Your task to perform on an android device: Open sound settings Image 0: 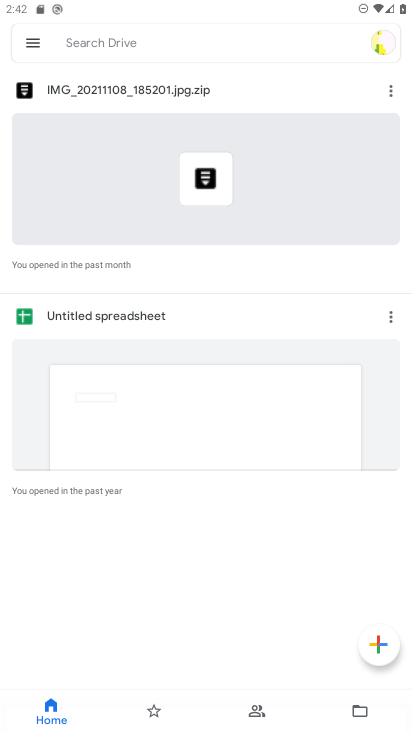
Step 0: press home button
Your task to perform on an android device: Open sound settings Image 1: 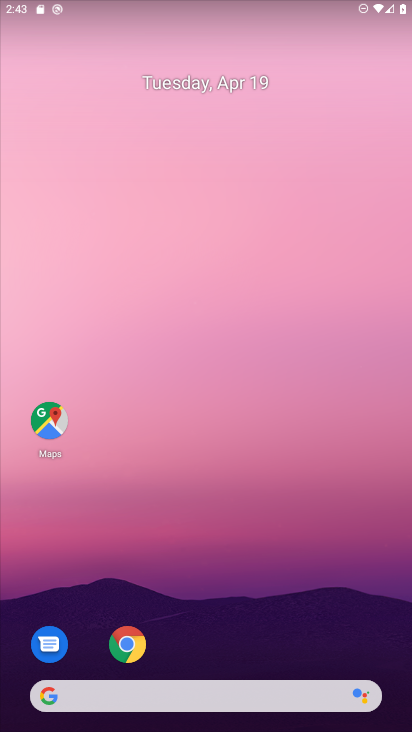
Step 1: drag from (232, 657) to (259, 283)
Your task to perform on an android device: Open sound settings Image 2: 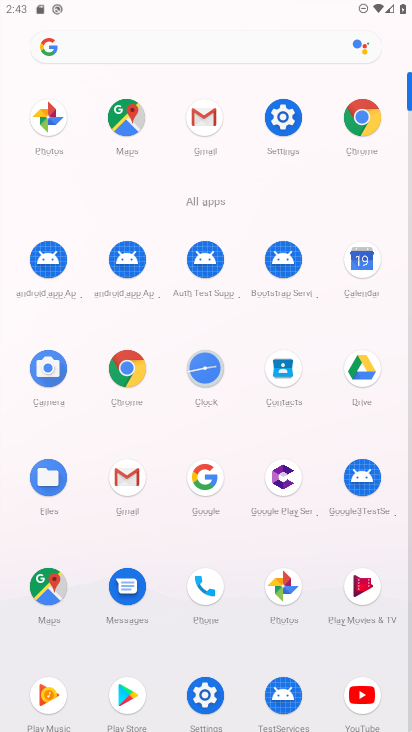
Step 2: click (286, 136)
Your task to perform on an android device: Open sound settings Image 3: 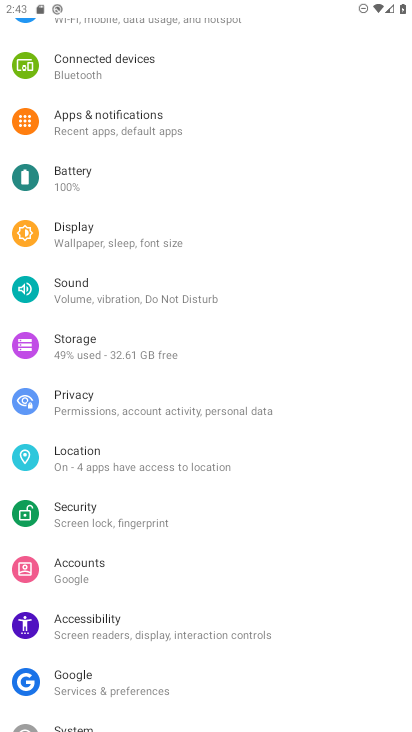
Step 3: click (102, 296)
Your task to perform on an android device: Open sound settings Image 4: 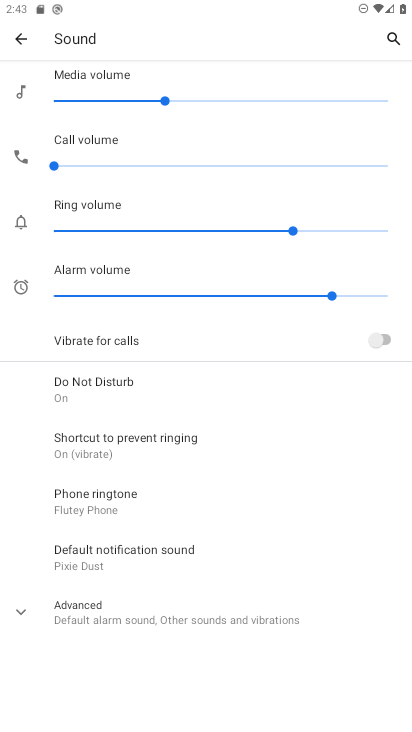
Step 4: click (21, 610)
Your task to perform on an android device: Open sound settings Image 5: 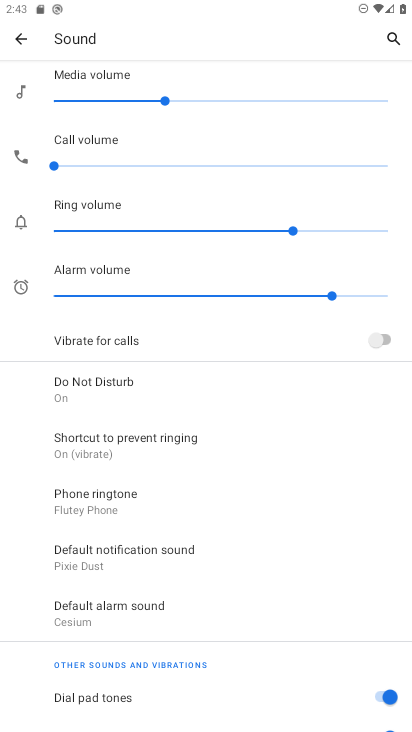
Step 5: task complete